Your task to perform on an android device: empty trash in google photos Image 0: 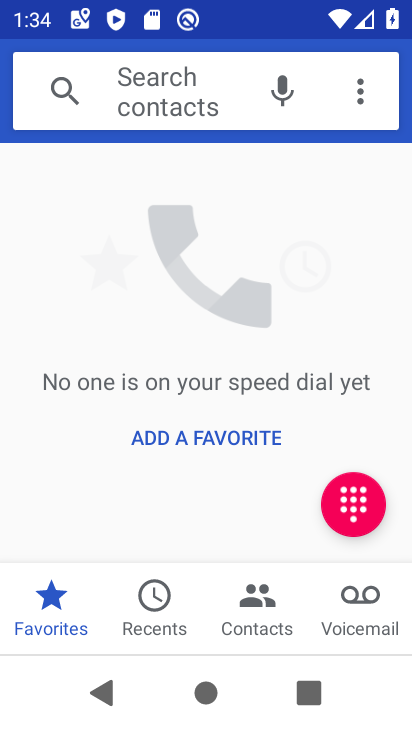
Step 0: press home button
Your task to perform on an android device: empty trash in google photos Image 1: 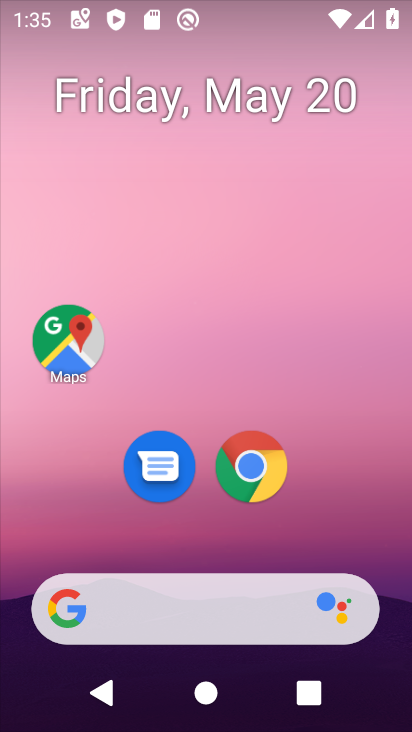
Step 1: drag from (201, 567) to (157, 128)
Your task to perform on an android device: empty trash in google photos Image 2: 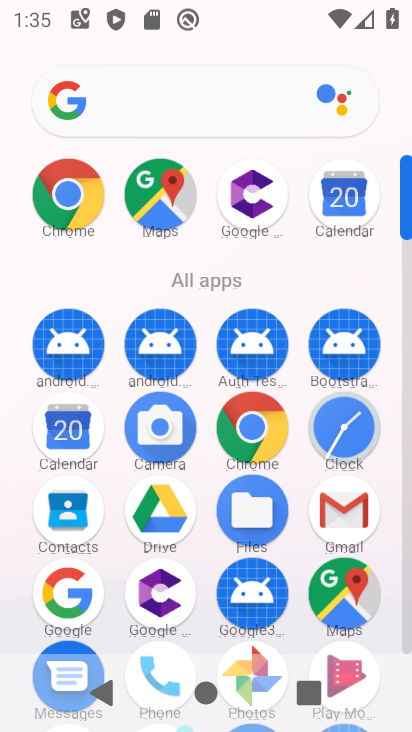
Step 2: click (250, 656)
Your task to perform on an android device: empty trash in google photos Image 3: 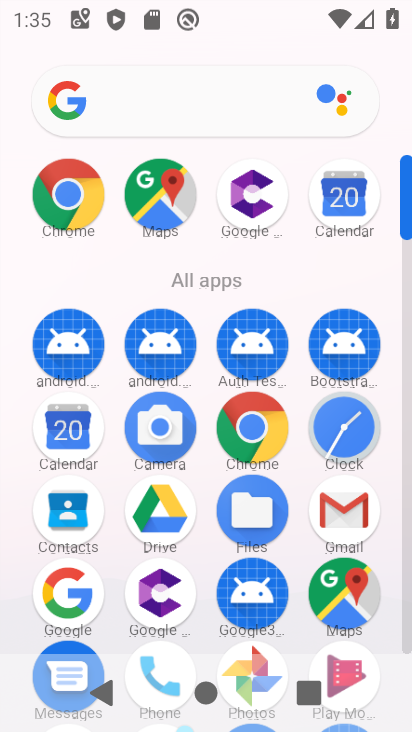
Step 3: click (254, 654)
Your task to perform on an android device: empty trash in google photos Image 4: 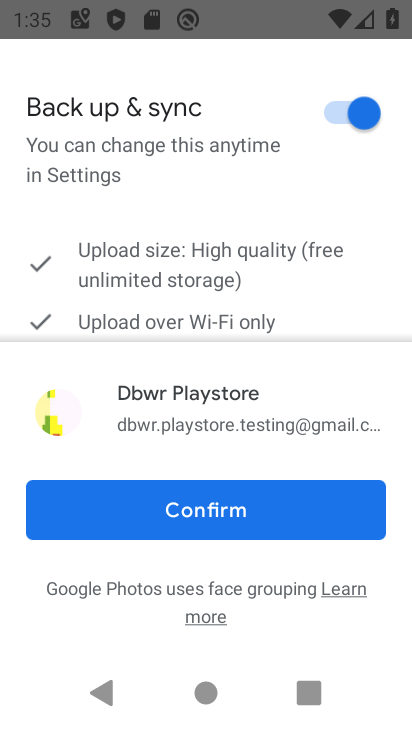
Step 4: click (194, 508)
Your task to perform on an android device: empty trash in google photos Image 5: 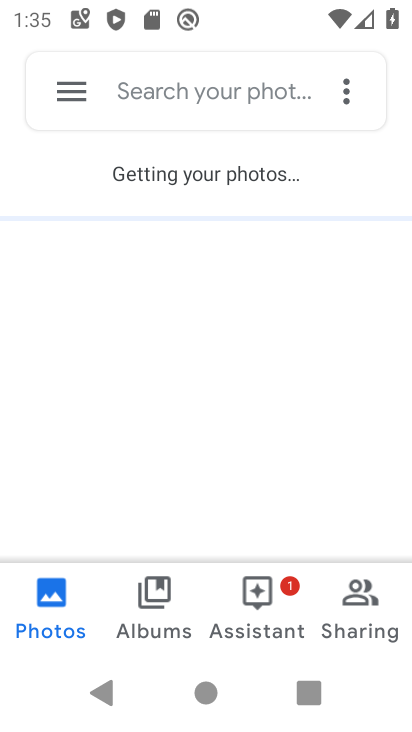
Step 5: click (65, 99)
Your task to perform on an android device: empty trash in google photos Image 6: 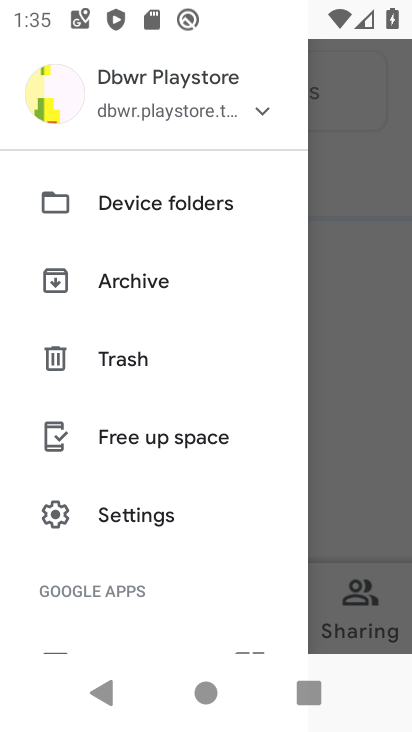
Step 6: click (105, 342)
Your task to perform on an android device: empty trash in google photos Image 7: 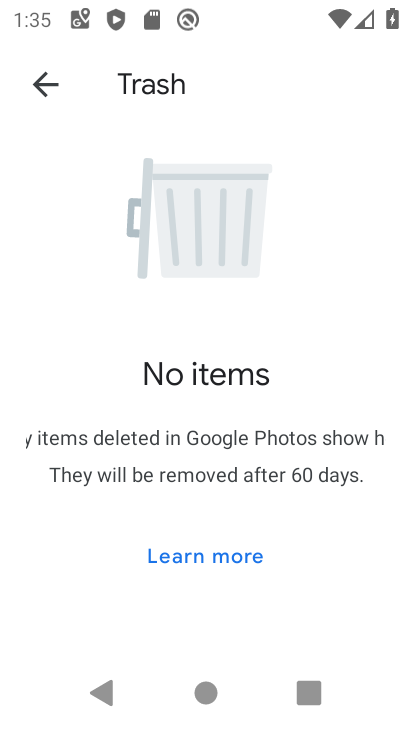
Step 7: task complete